Your task to perform on an android device: See recent photos Image 0: 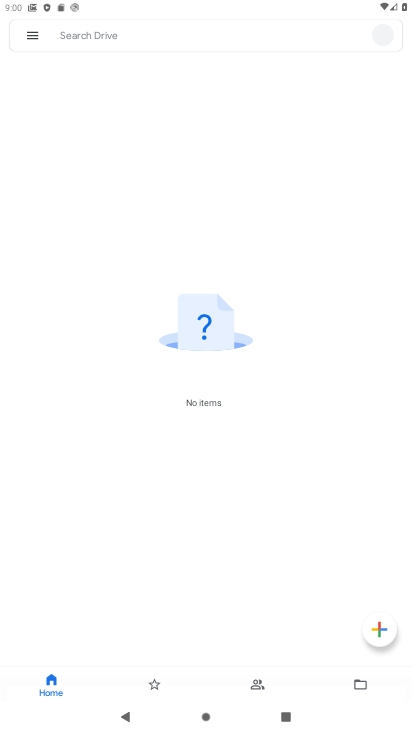
Step 0: press home button
Your task to perform on an android device: See recent photos Image 1: 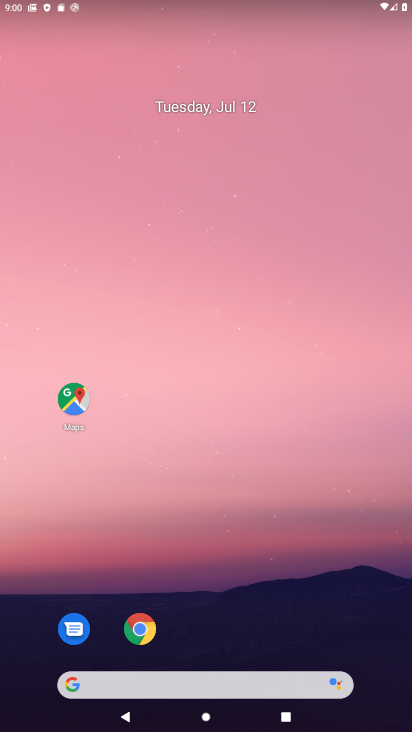
Step 1: drag from (189, 658) to (280, 237)
Your task to perform on an android device: See recent photos Image 2: 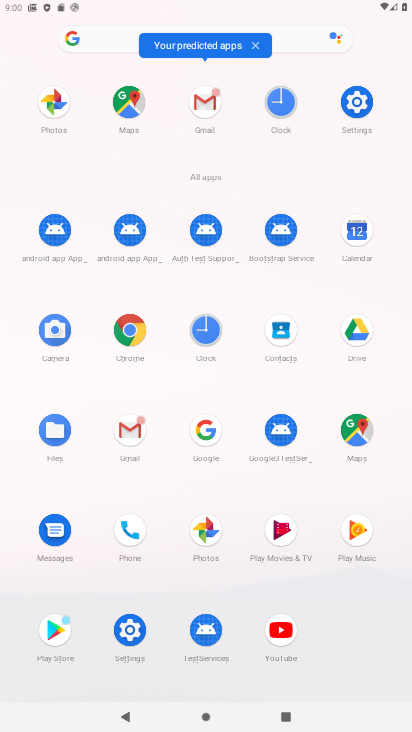
Step 2: click (208, 524)
Your task to perform on an android device: See recent photos Image 3: 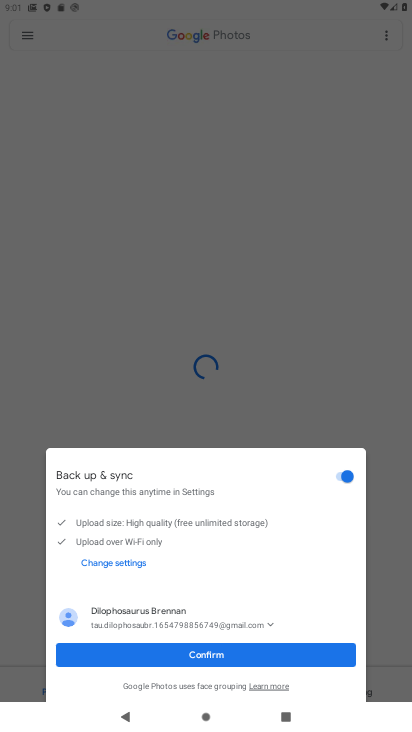
Step 3: click (221, 661)
Your task to perform on an android device: See recent photos Image 4: 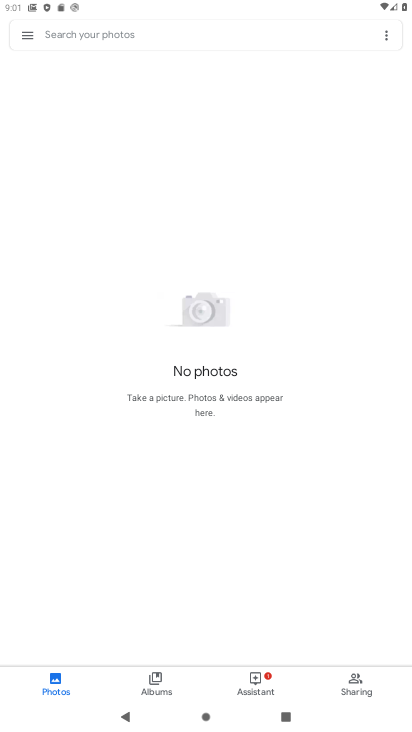
Step 4: task complete